Your task to perform on an android device: Open eBay Image 0: 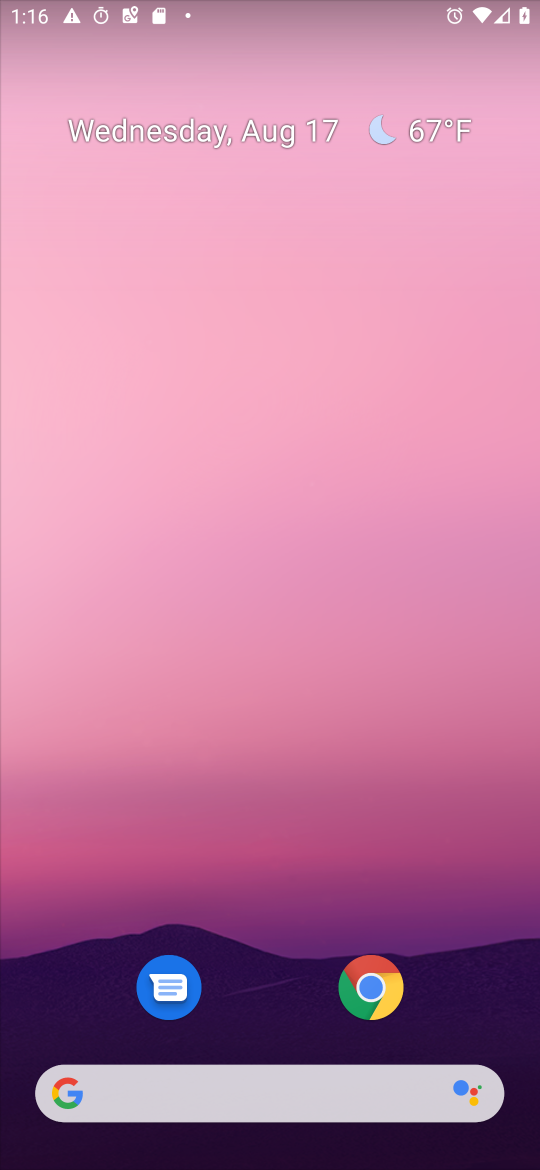
Step 0: click (133, 1092)
Your task to perform on an android device: Open eBay Image 1: 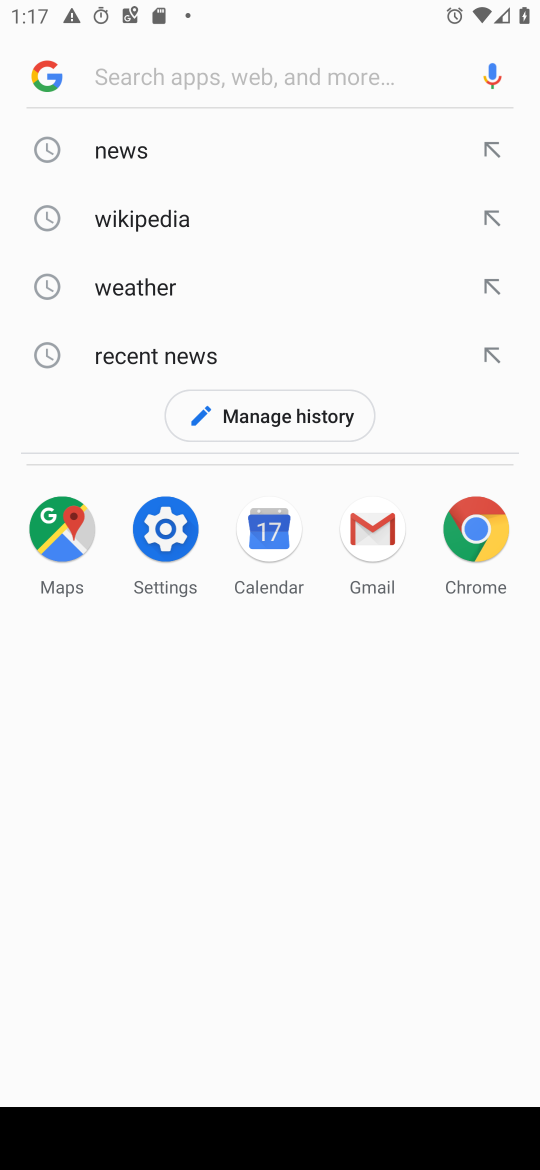
Step 1: type "eBay"
Your task to perform on an android device: Open eBay Image 2: 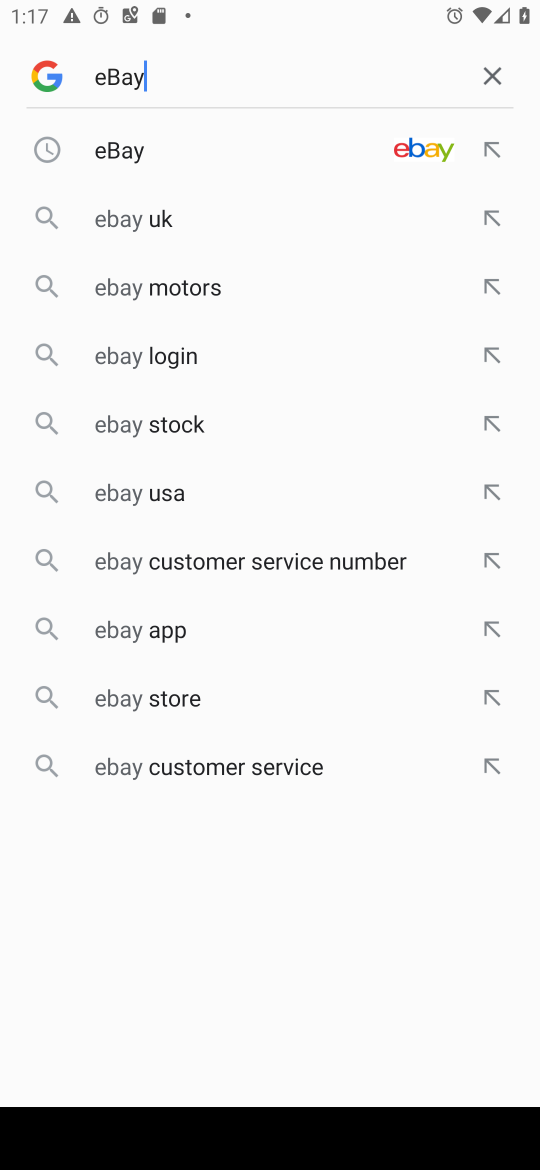
Step 2: click (111, 164)
Your task to perform on an android device: Open eBay Image 3: 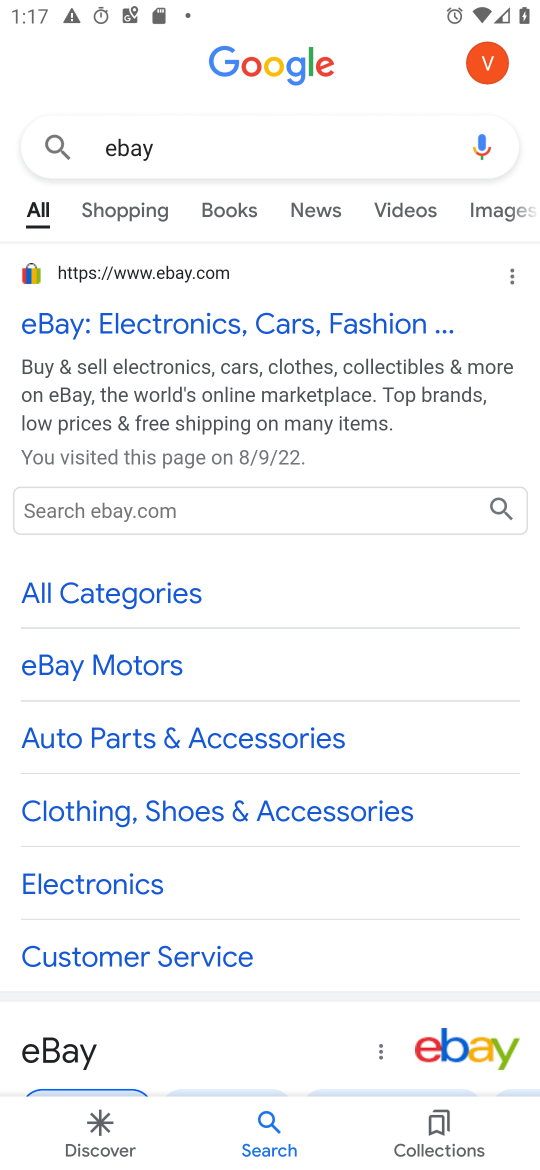
Step 3: task complete